Your task to perform on an android device: set the stopwatch Image 0: 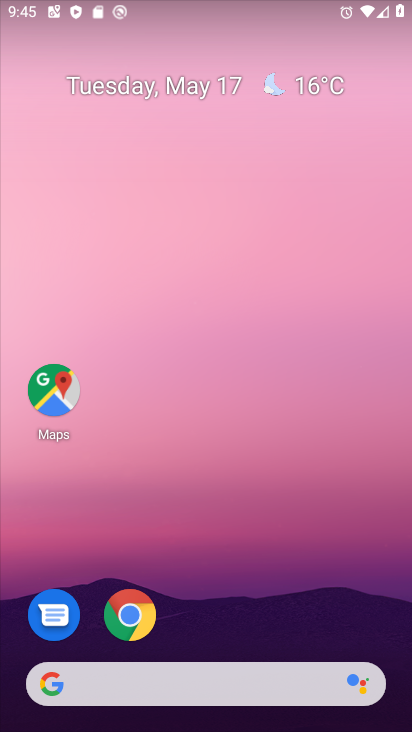
Step 0: drag from (314, 623) to (278, 140)
Your task to perform on an android device: set the stopwatch Image 1: 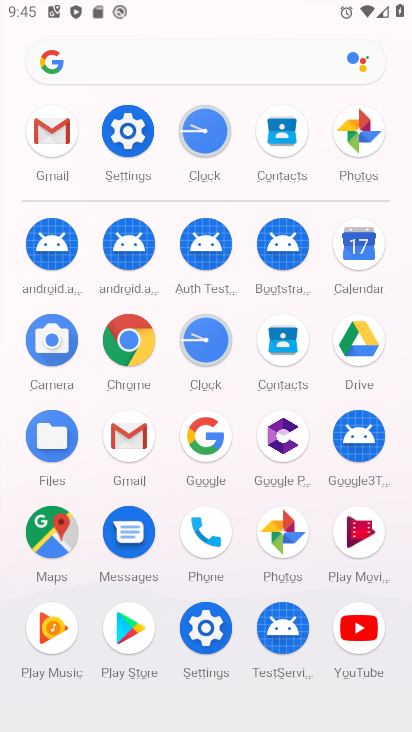
Step 1: click (205, 347)
Your task to perform on an android device: set the stopwatch Image 2: 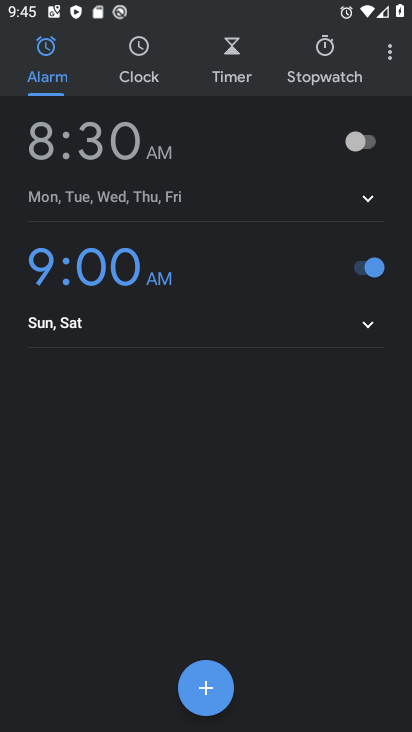
Step 2: click (322, 59)
Your task to perform on an android device: set the stopwatch Image 3: 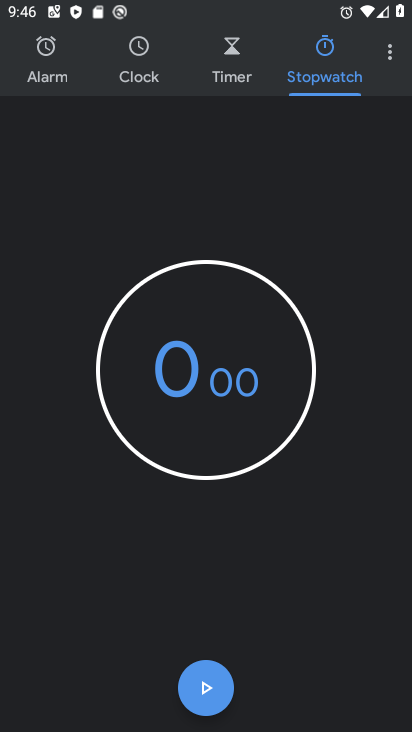
Step 3: task complete